Your task to perform on an android device: set default search engine in the chrome app Image 0: 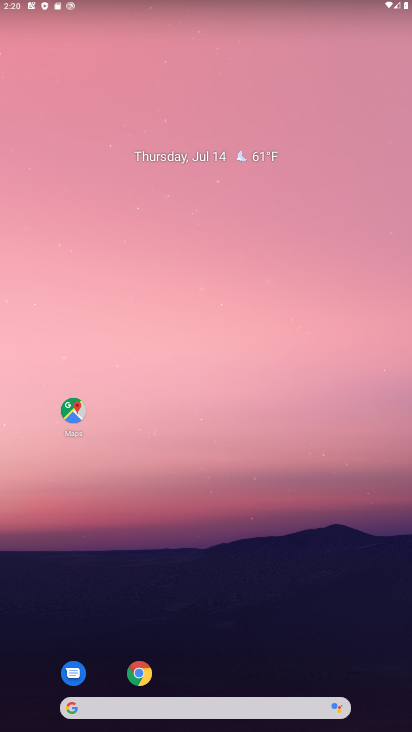
Step 0: click (135, 671)
Your task to perform on an android device: set default search engine in the chrome app Image 1: 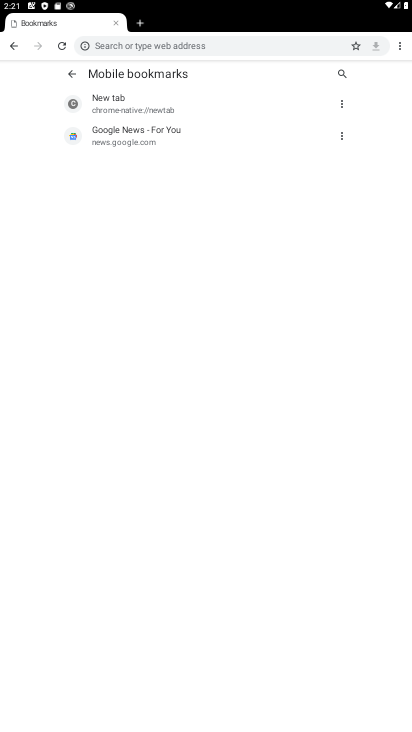
Step 1: click (408, 48)
Your task to perform on an android device: set default search engine in the chrome app Image 2: 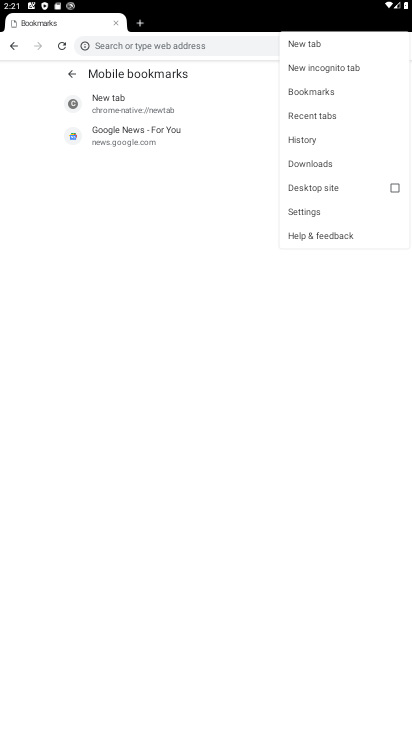
Step 2: click (298, 215)
Your task to perform on an android device: set default search engine in the chrome app Image 3: 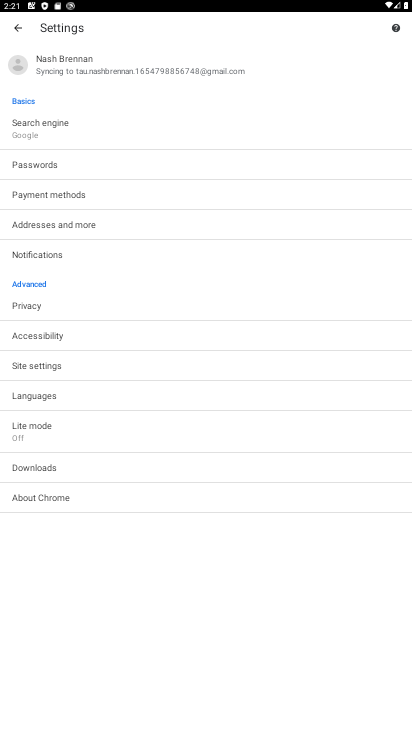
Step 3: click (101, 126)
Your task to perform on an android device: set default search engine in the chrome app Image 4: 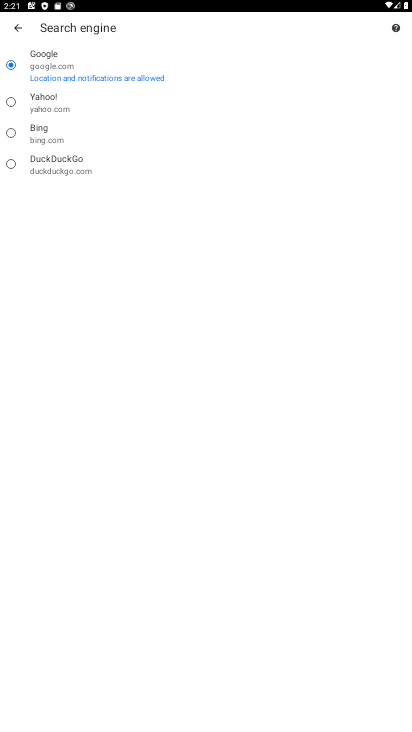
Step 4: click (45, 142)
Your task to perform on an android device: set default search engine in the chrome app Image 5: 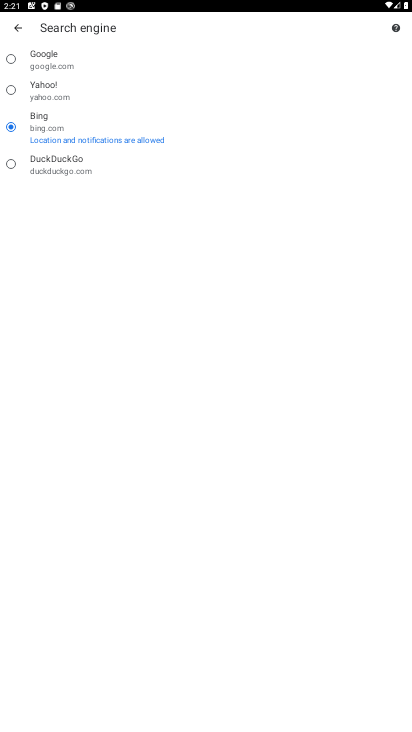
Step 5: task complete